Your task to perform on an android device: turn off notifications in google photos Image 0: 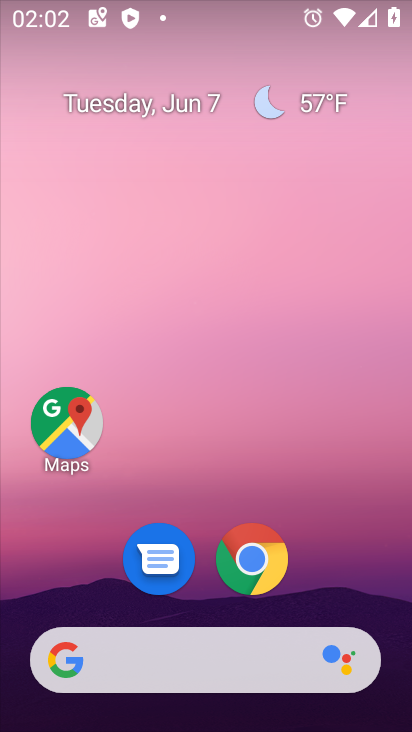
Step 0: drag from (335, 570) to (307, 105)
Your task to perform on an android device: turn off notifications in google photos Image 1: 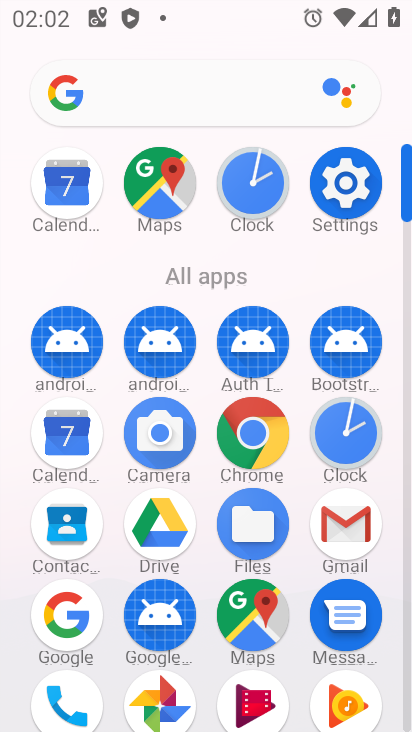
Step 1: drag from (296, 284) to (293, 146)
Your task to perform on an android device: turn off notifications in google photos Image 2: 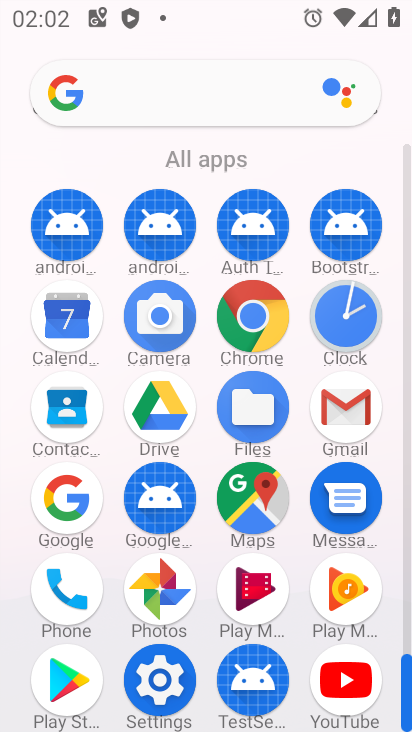
Step 2: click (161, 585)
Your task to perform on an android device: turn off notifications in google photos Image 3: 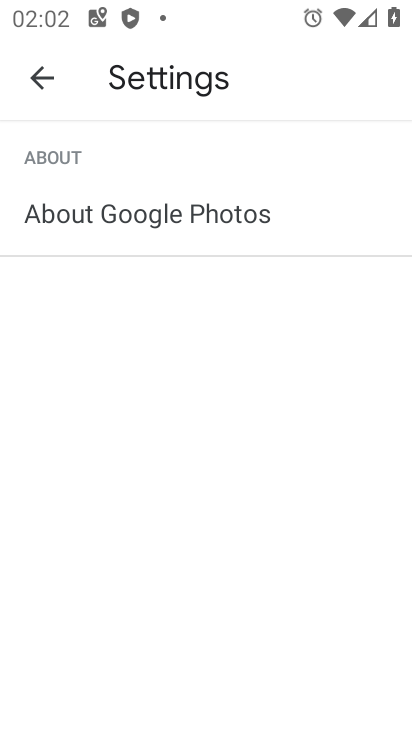
Step 3: click (25, 84)
Your task to perform on an android device: turn off notifications in google photos Image 4: 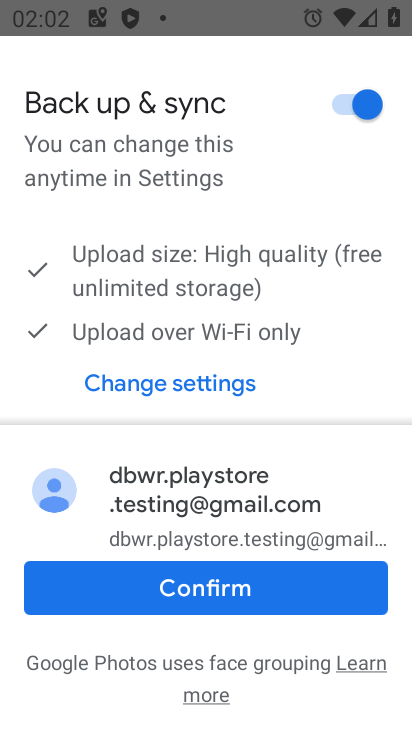
Step 4: click (215, 592)
Your task to perform on an android device: turn off notifications in google photos Image 5: 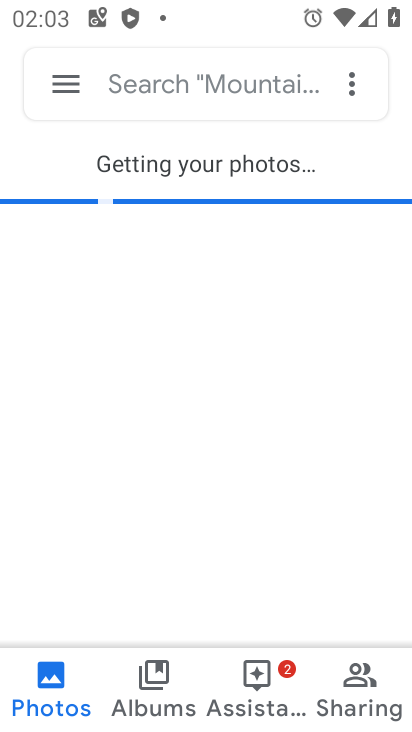
Step 5: click (68, 87)
Your task to perform on an android device: turn off notifications in google photos Image 6: 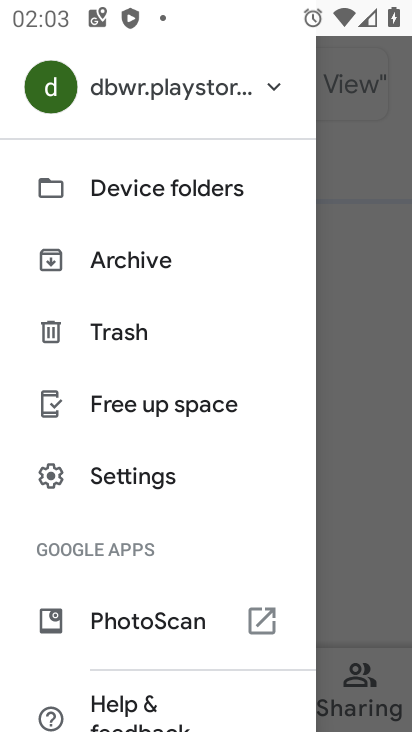
Step 6: click (139, 476)
Your task to perform on an android device: turn off notifications in google photos Image 7: 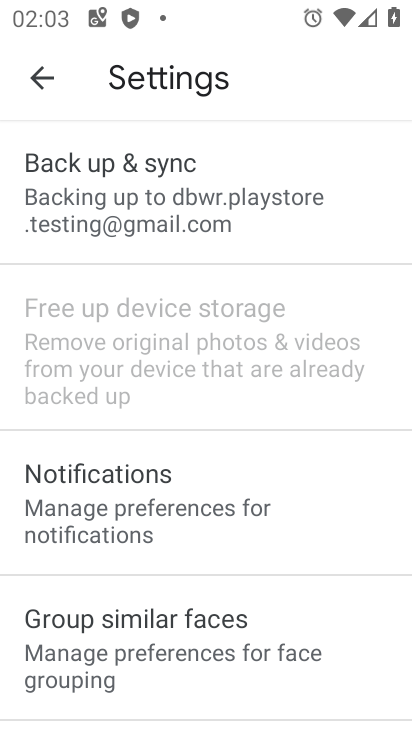
Step 7: click (134, 473)
Your task to perform on an android device: turn off notifications in google photos Image 8: 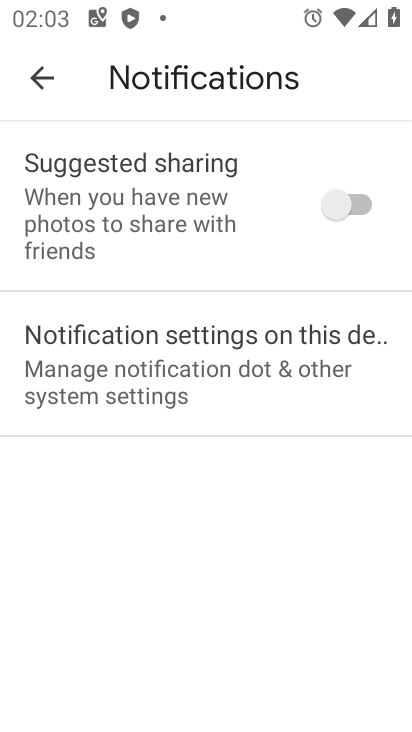
Step 8: click (189, 331)
Your task to perform on an android device: turn off notifications in google photos Image 9: 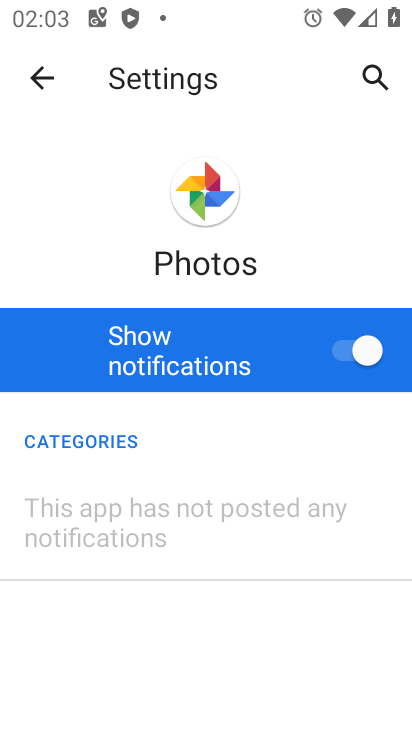
Step 9: click (345, 358)
Your task to perform on an android device: turn off notifications in google photos Image 10: 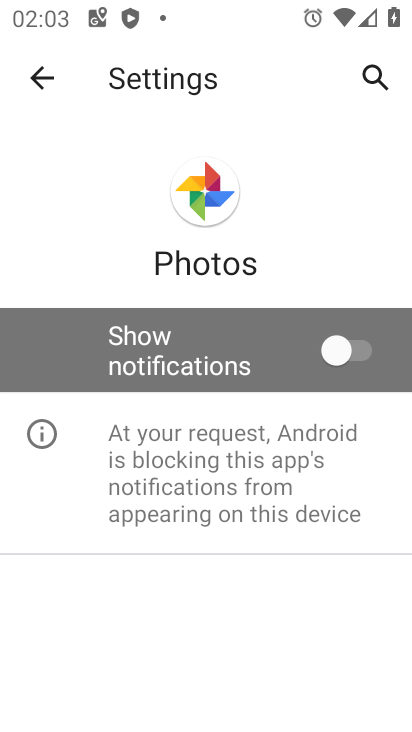
Step 10: task complete